Your task to perform on an android device: open app "Calculator" Image 0: 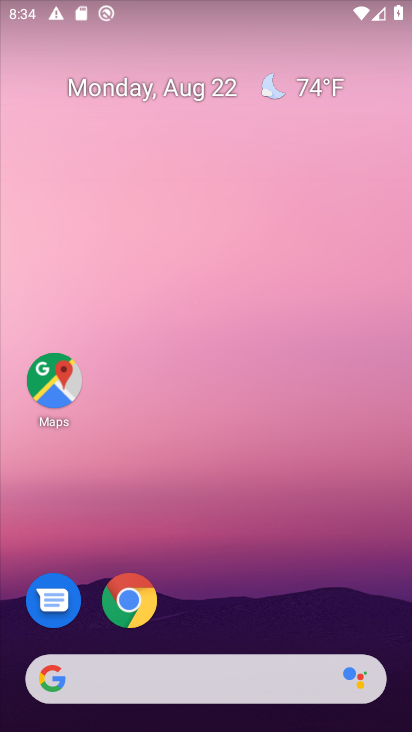
Step 0: drag from (209, 577) to (218, 68)
Your task to perform on an android device: open app "Calculator" Image 1: 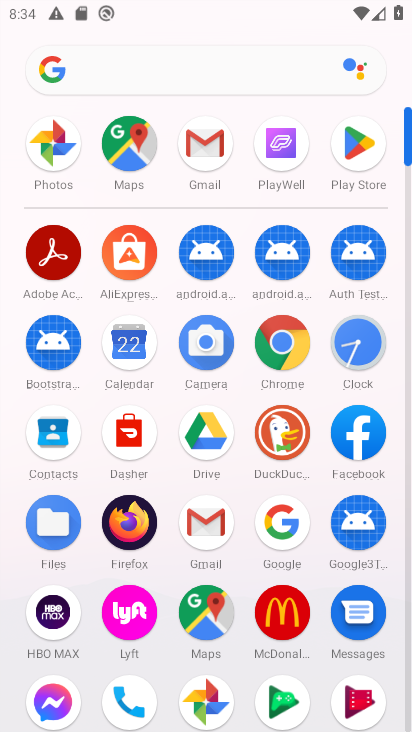
Step 1: click (355, 159)
Your task to perform on an android device: open app "Calculator" Image 2: 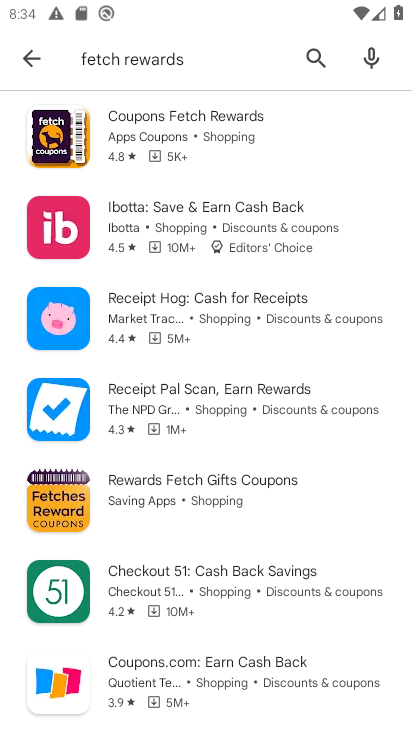
Step 2: click (311, 56)
Your task to perform on an android device: open app "Calculator" Image 3: 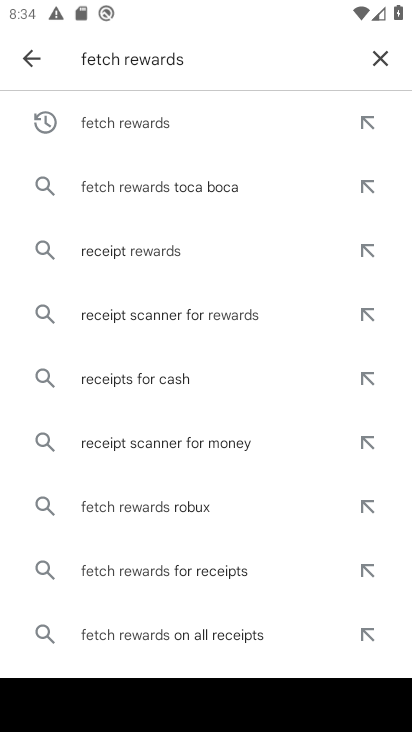
Step 3: click (370, 59)
Your task to perform on an android device: open app "Calculator" Image 4: 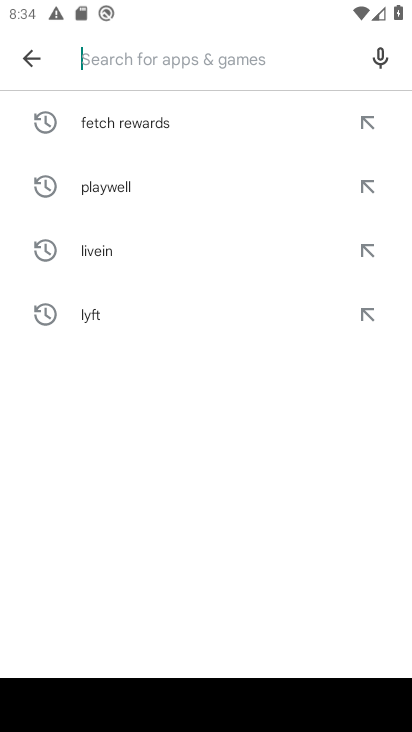
Step 4: type "Calculator"
Your task to perform on an android device: open app "Calculator" Image 5: 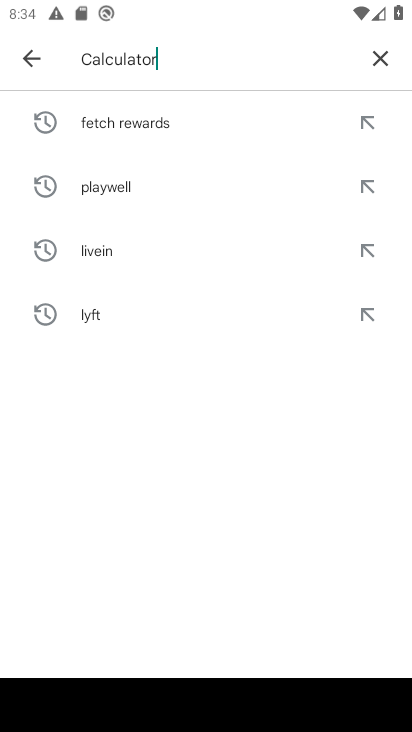
Step 5: type ""
Your task to perform on an android device: open app "Calculator" Image 6: 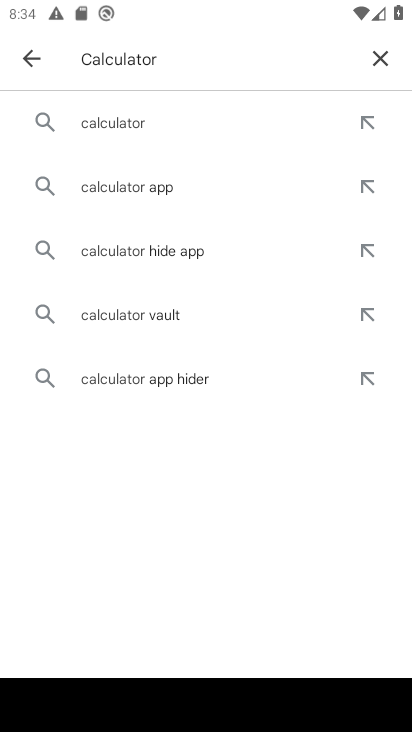
Step 6: click (127, 121)
Your task to perform on an android device: open app "Calculator" Image 7: 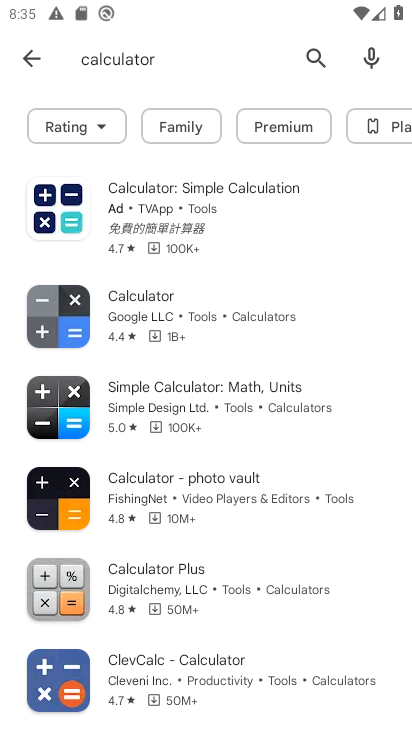
Step 7: click (217, 299)
Your task to perform on an android device: open app "Calculator" Image 8: 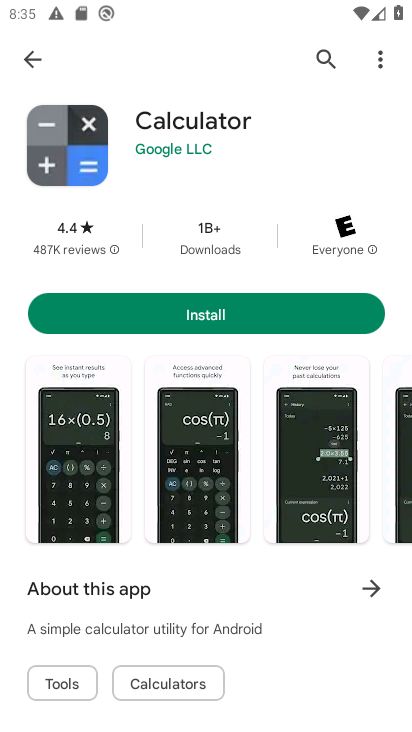
Step 8: task complete